Your task to perform on an android device: turn notification dots off Image 0: 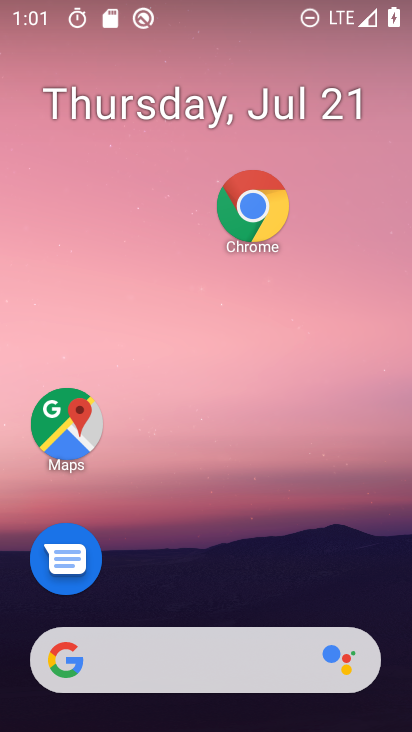
Step 0: drag from (245, 642) to (189, 246)
Your task to perform on an android device: turn notification dots off Image 1: 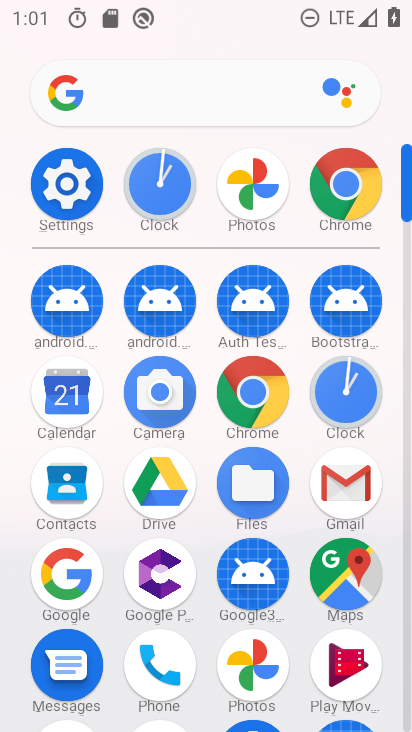
Step 1: click (71, 210)
Your task to perform on an android device: turn notification dots off Image 2: 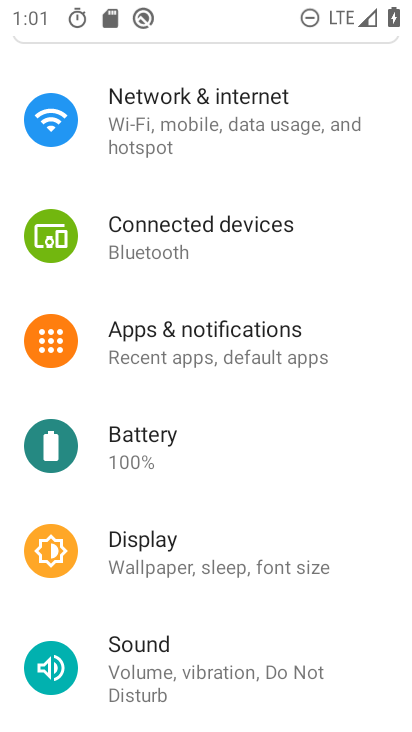
Step 2: click (214, 338)
Your task to perform on an android device: turn notification dots off Image 3: 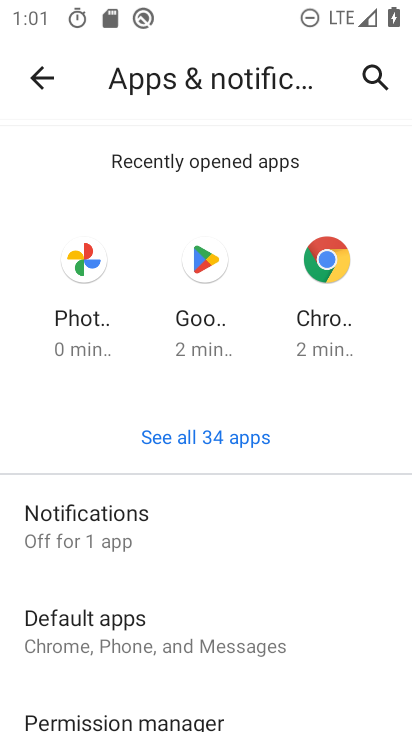
Step 3: click (147, 539)
Your task to perform on an android device: turn notification dots off Image 4: 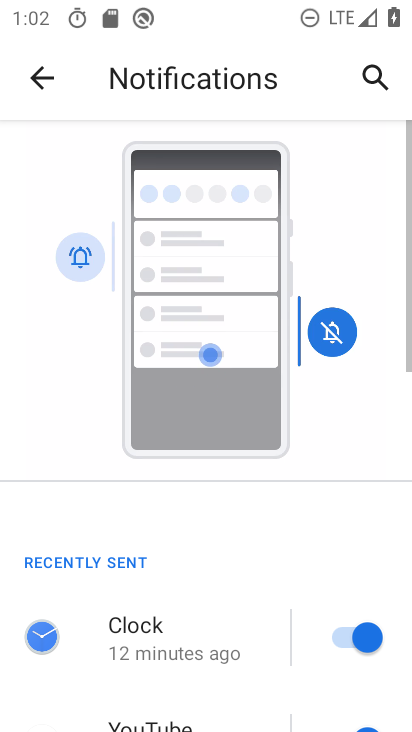
Step 4: drag from (136, 667) to (219, 380)
Your task to perform on an android device: turn notification dots off Image 5: 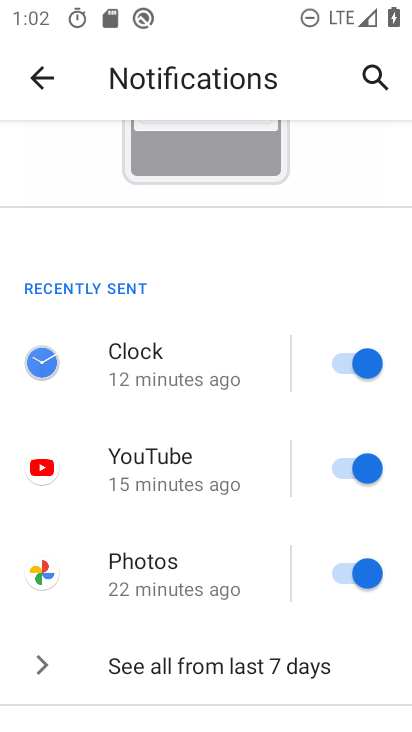
Step 5: drag from (220, 598) to (257, 243)
Your task to perform on an android device: turn notification dots off Image 6: 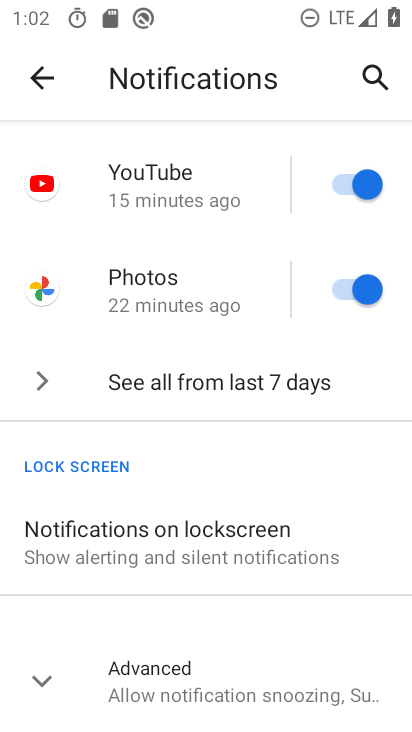
Step 6: click (227, 705)
Your task to perform on an android device: turn notification dots off Image 7: 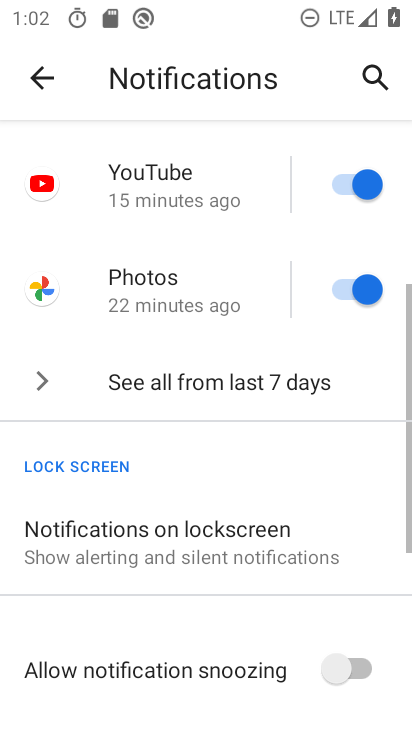
Step 7: drag from (213, 623) to (195, 173)
Your task to perform on an android device: turn notification dots off Image 8: 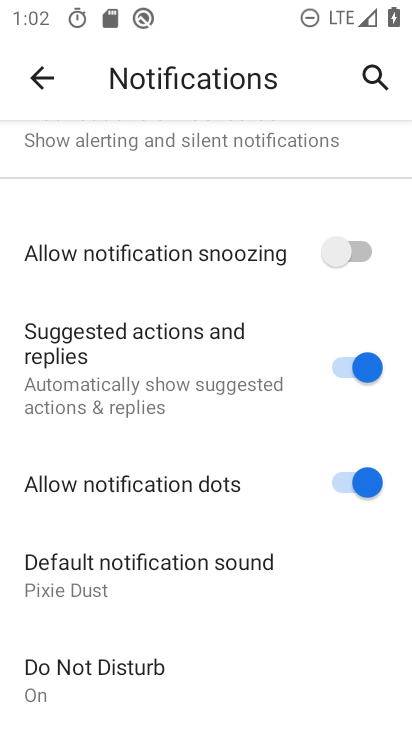
Step 8: click (364, 488)
Your task to perform on an android device: turn notification dots off Image 9: 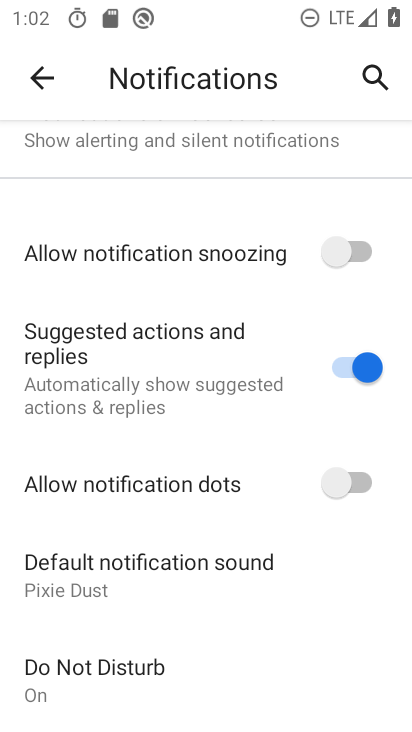
Step 9: task complete